Your task to perform on an android device: see sites visited before in the chrome app Image 0: 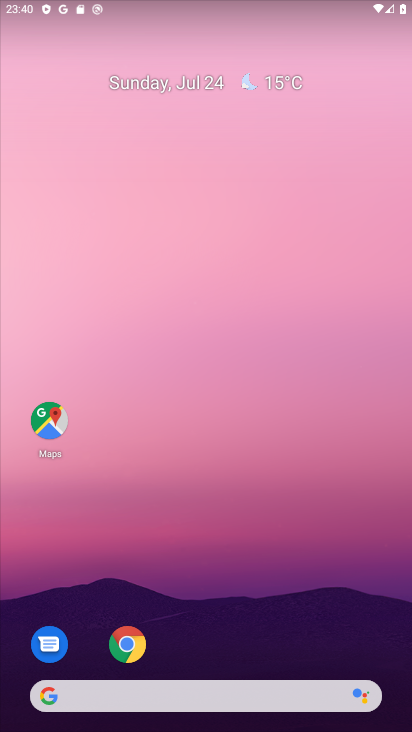
Step 0: click (126, 644)
Your task to perform on an android device: see sites visited before in the chrome app Image 1: 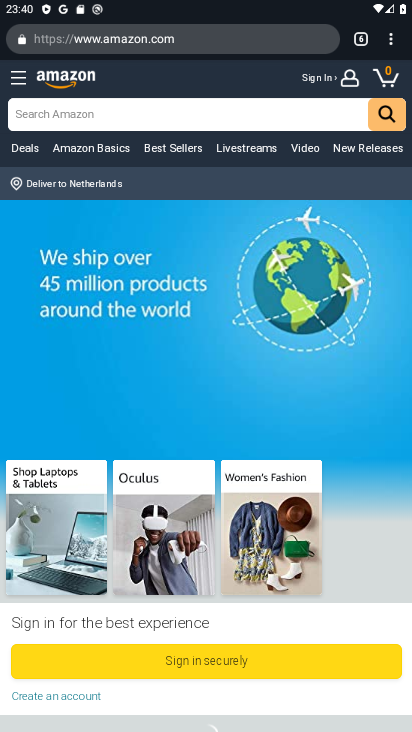
Step 1: click (390, 40)
Your task to perform on an android device: see sites visited before in the chrome app Image 2: 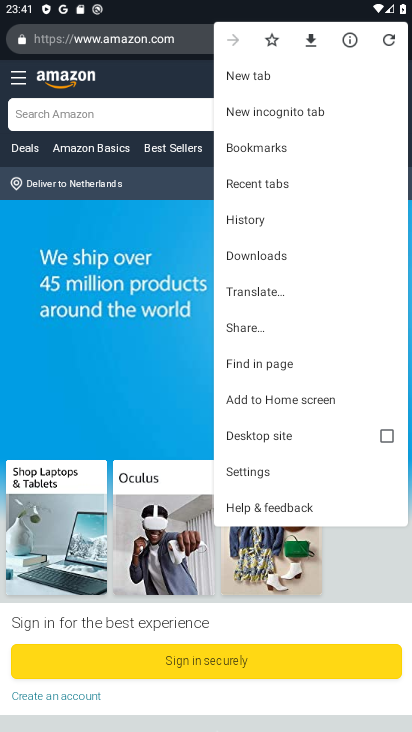
Step 2: click (246, 184)
Your task to perform on an android device: see sites visited before in the chrome app Image 3: 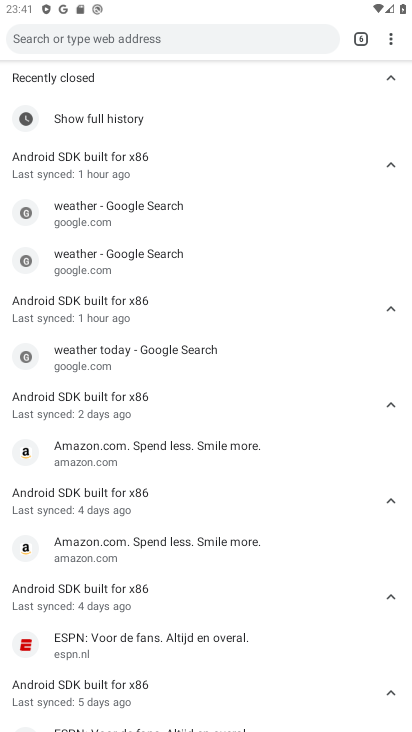
Step 3: task complete